Your task to perform on an android device: Go to Google Image 0: 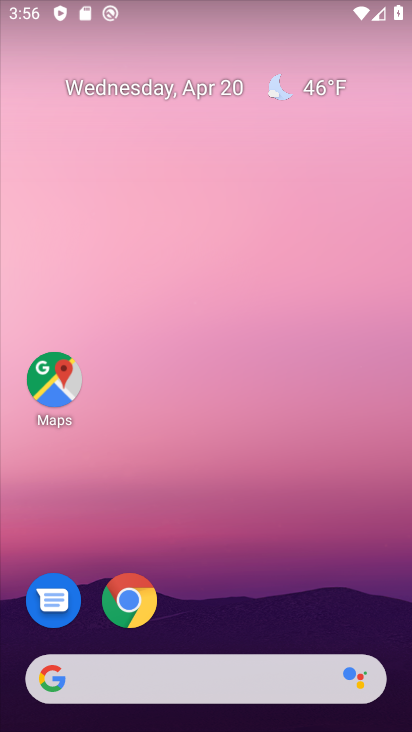
Step 0: drag from (215, 609) to (237, 77)
Your task to perform on an android device: Go to Google Image 1: 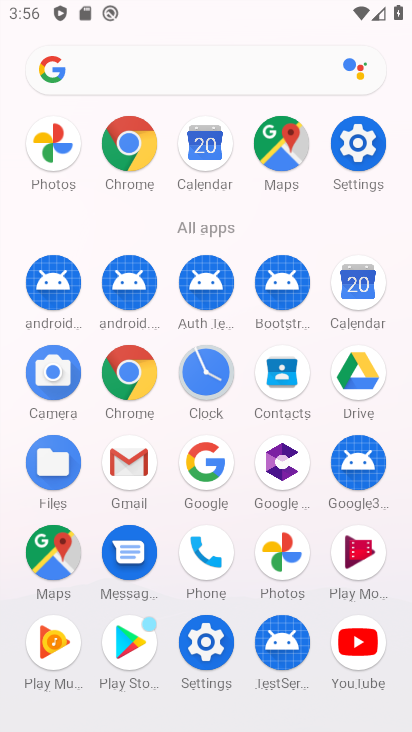
Step 1: click (209, 472)
Your task to perform on an android device: Go to Google Image 2: 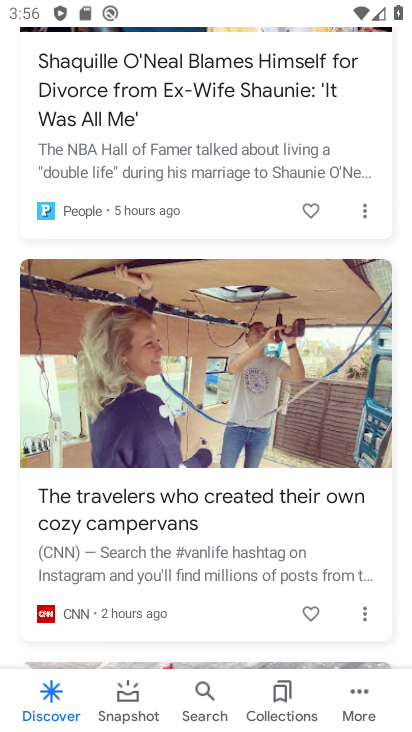
Step 2: task complete